Your task to perform on an android device: What's the weather going to be tomorrow? Image 0: 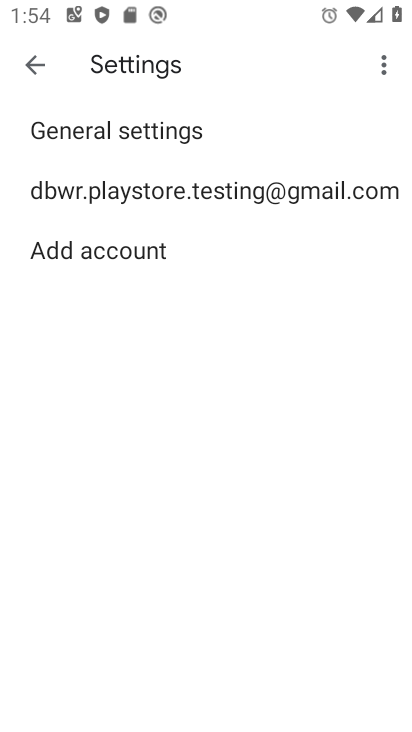
Step 0: press home button
Your task to perform on an android device: What's the weather going to be tomorrow? Image 1: 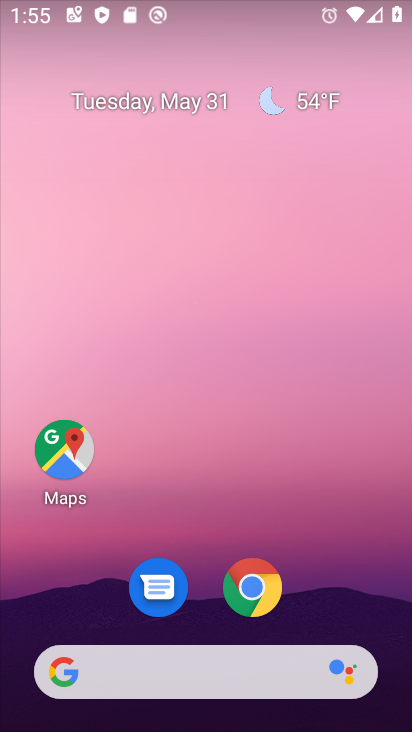
Step 1: drag from (218, 626) to (9, 227)
Your task to perform on an android device: What's the weather going to be tomorrow? Image 2: 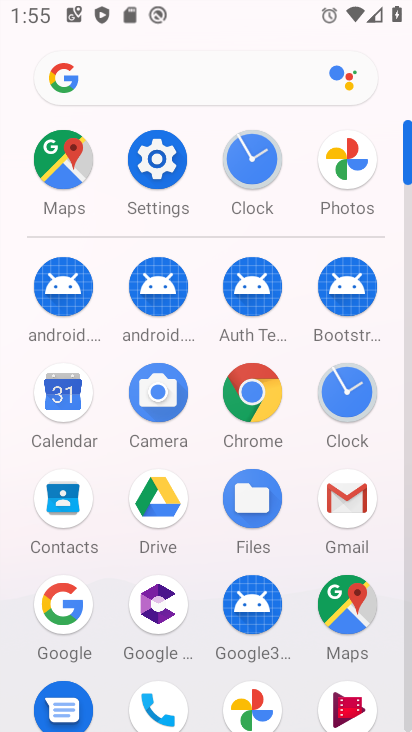
Step 2: click (146, 82)
Your task to perform on an android device: What's the weather going to be tomorrow? Image 3: 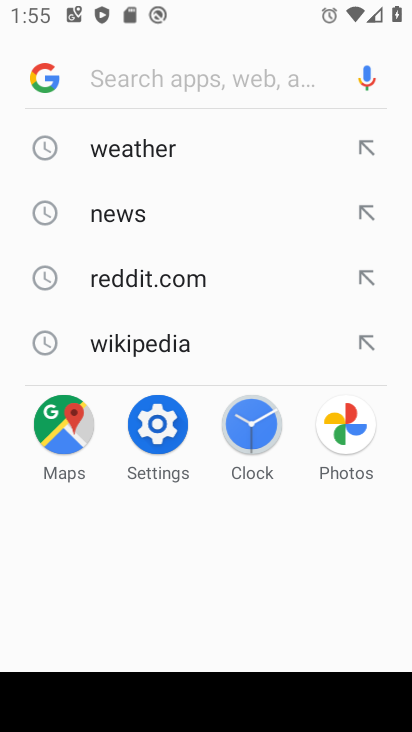
Step 3: click (111, 163)
Your task to perform on an android device: What's the weather going to be tomorrow? Image 4: 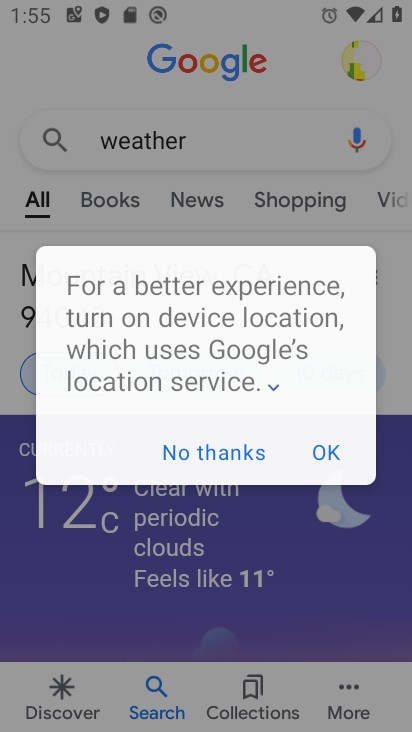
Step 4: task complete